Your task to perform on an android device: clear history in the chrome app Image 0: 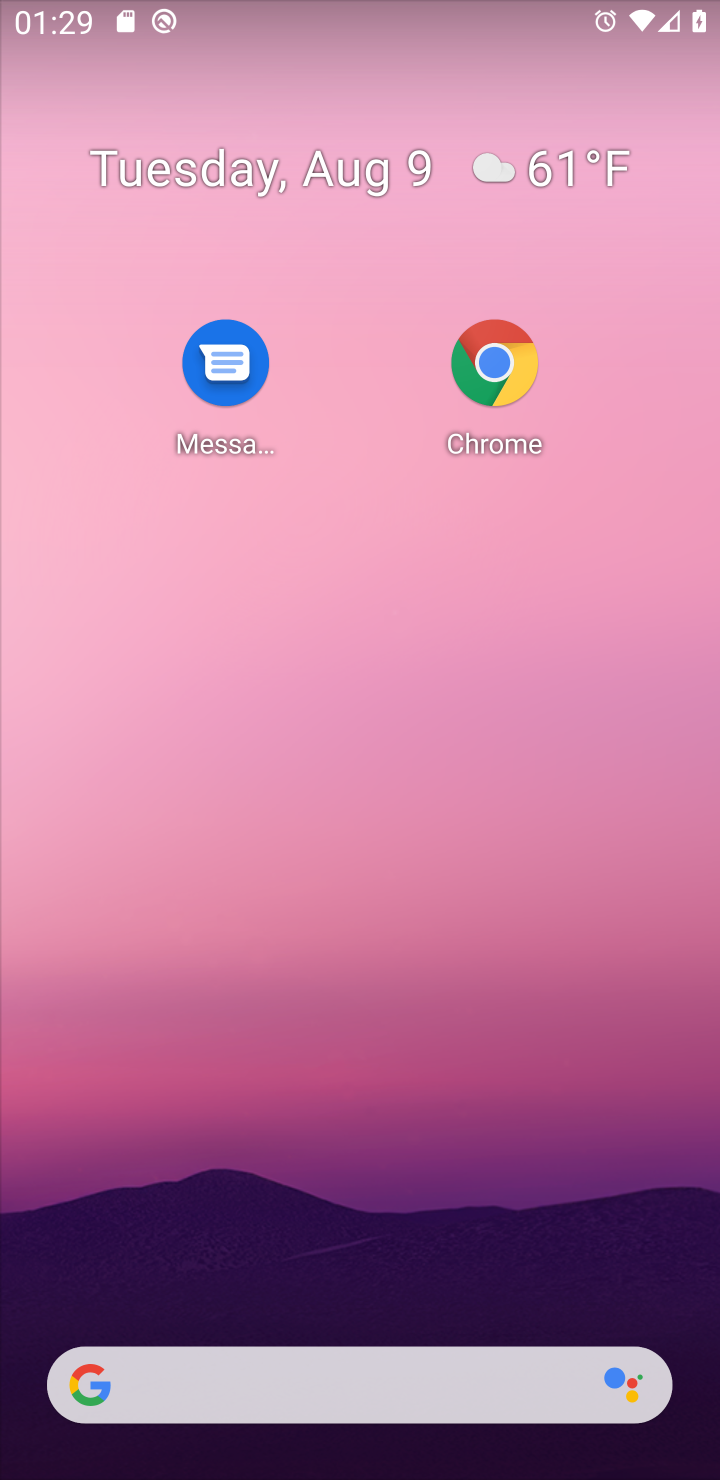
Step 0: drag from (388, 1273) to (454, 356)
Your task to perform on an android device: clear history in the chrome app Image 1: 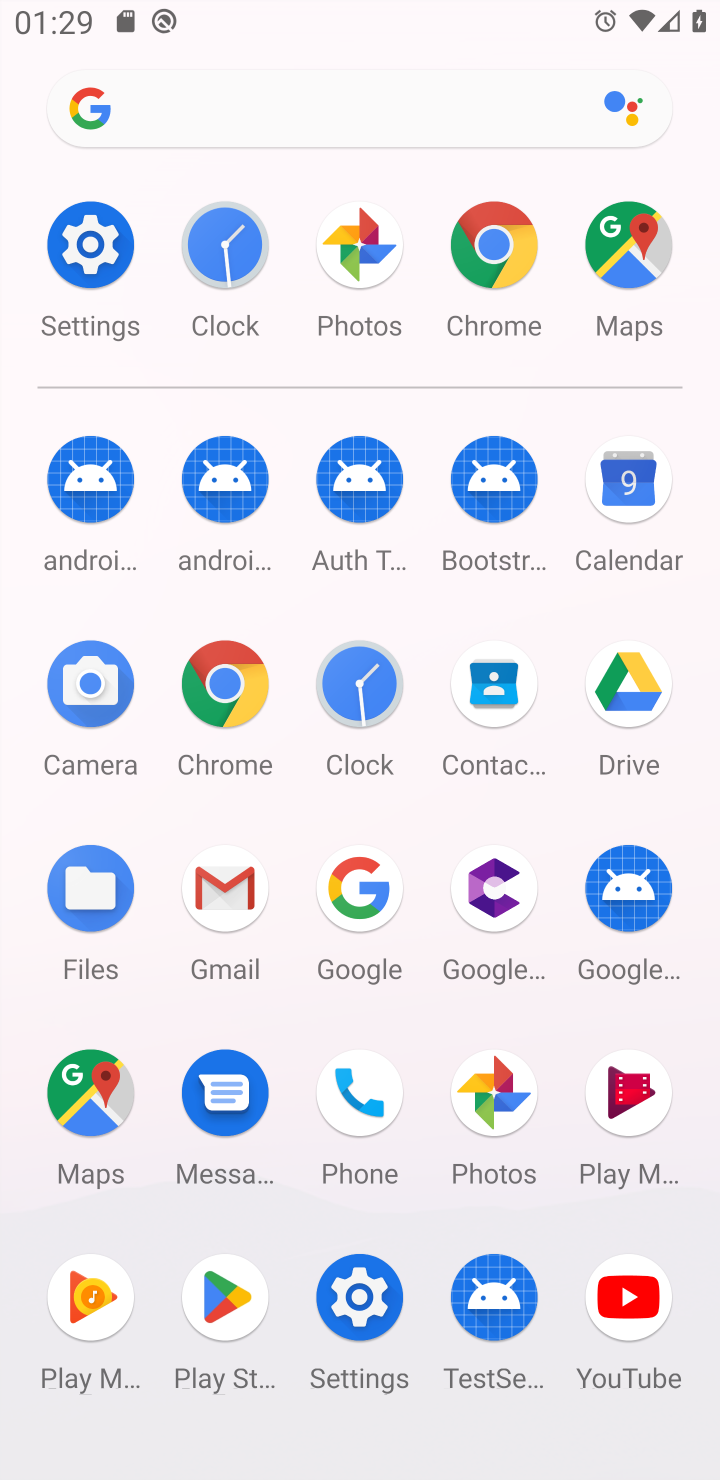
Step 1: click (224, 683)
Your task to perform on an android device: clear history in the chrome app Image 2: 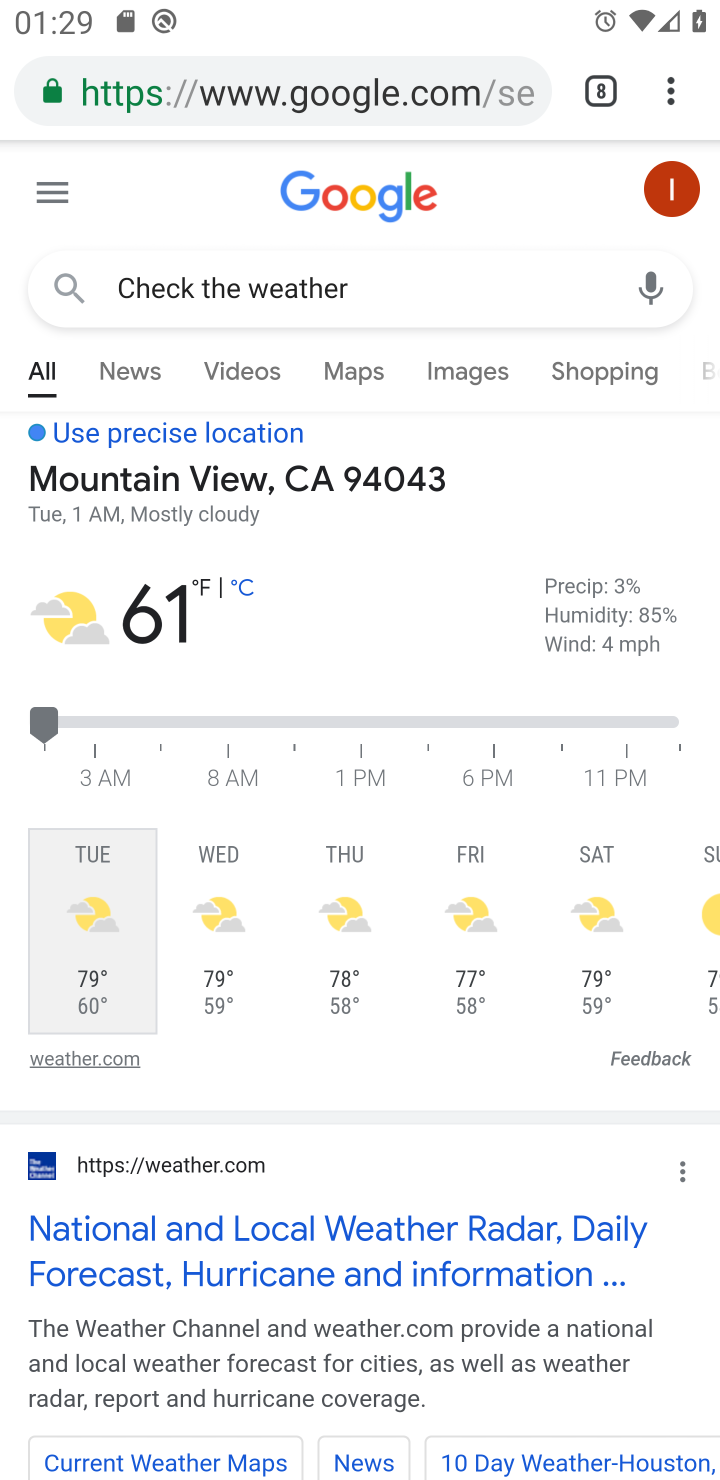
Step 2: click (677, 92)
Your task to perform on an android device: clear history in the chrome app Image 3: 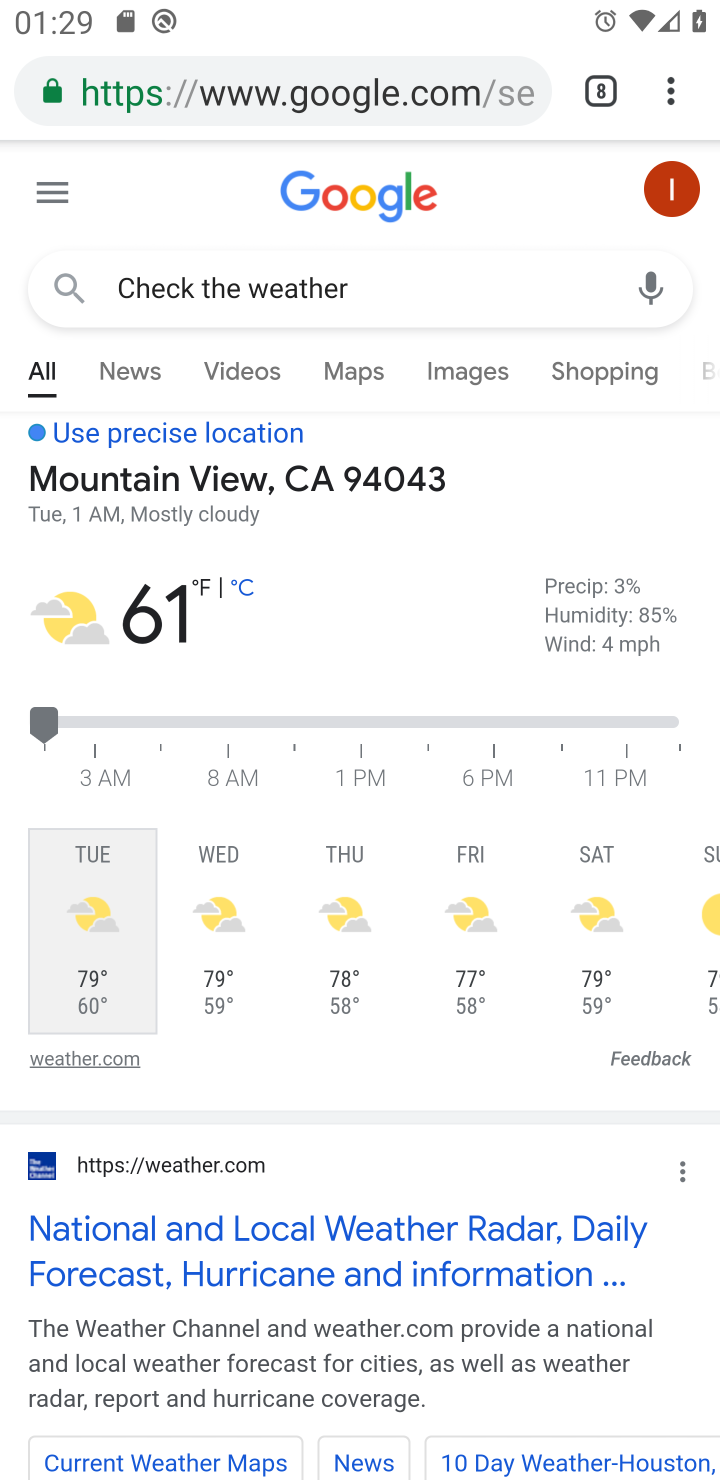
Step 3: click (674, 92)
Your task to perform on an android device: clear history in the chrome app Image 4: 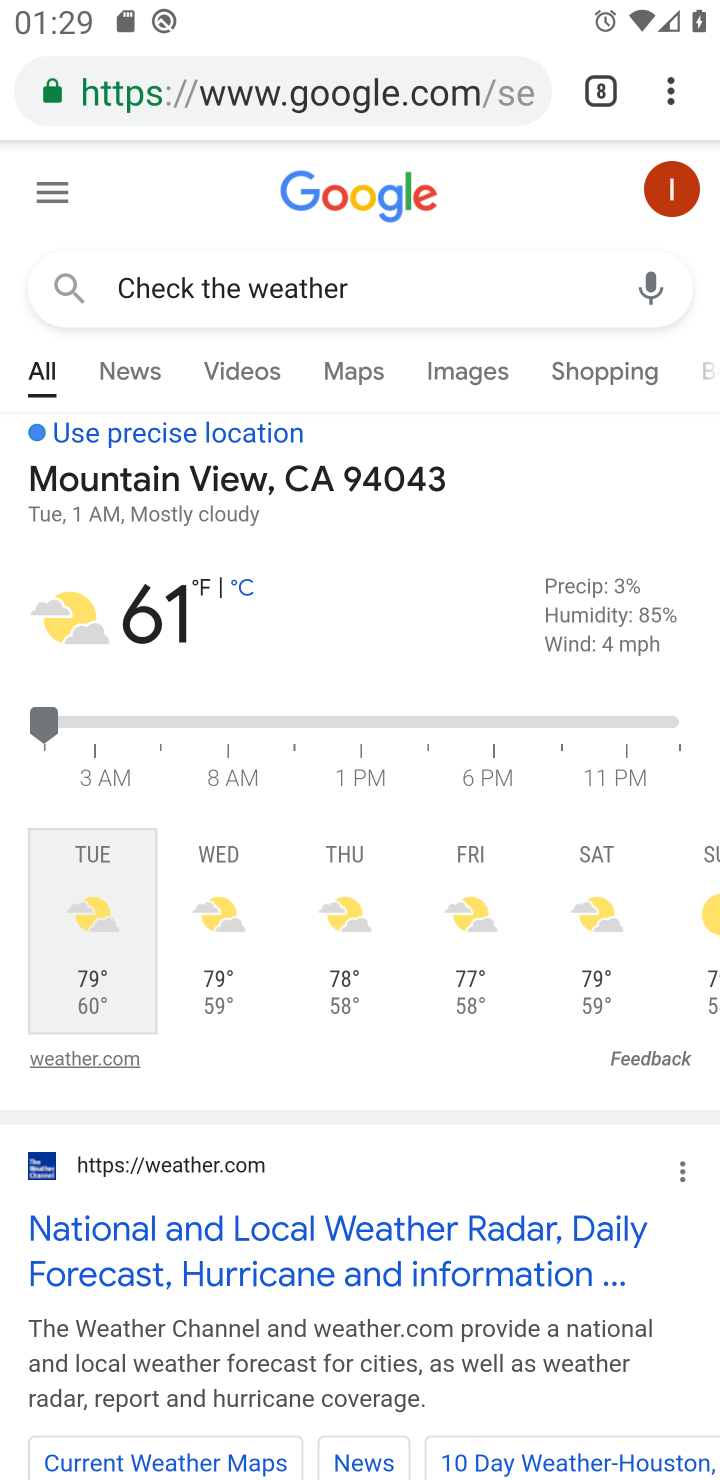
Step 4: click (674, 92)
Your task to perform on an android device: clear history in the chrome app Image 5: 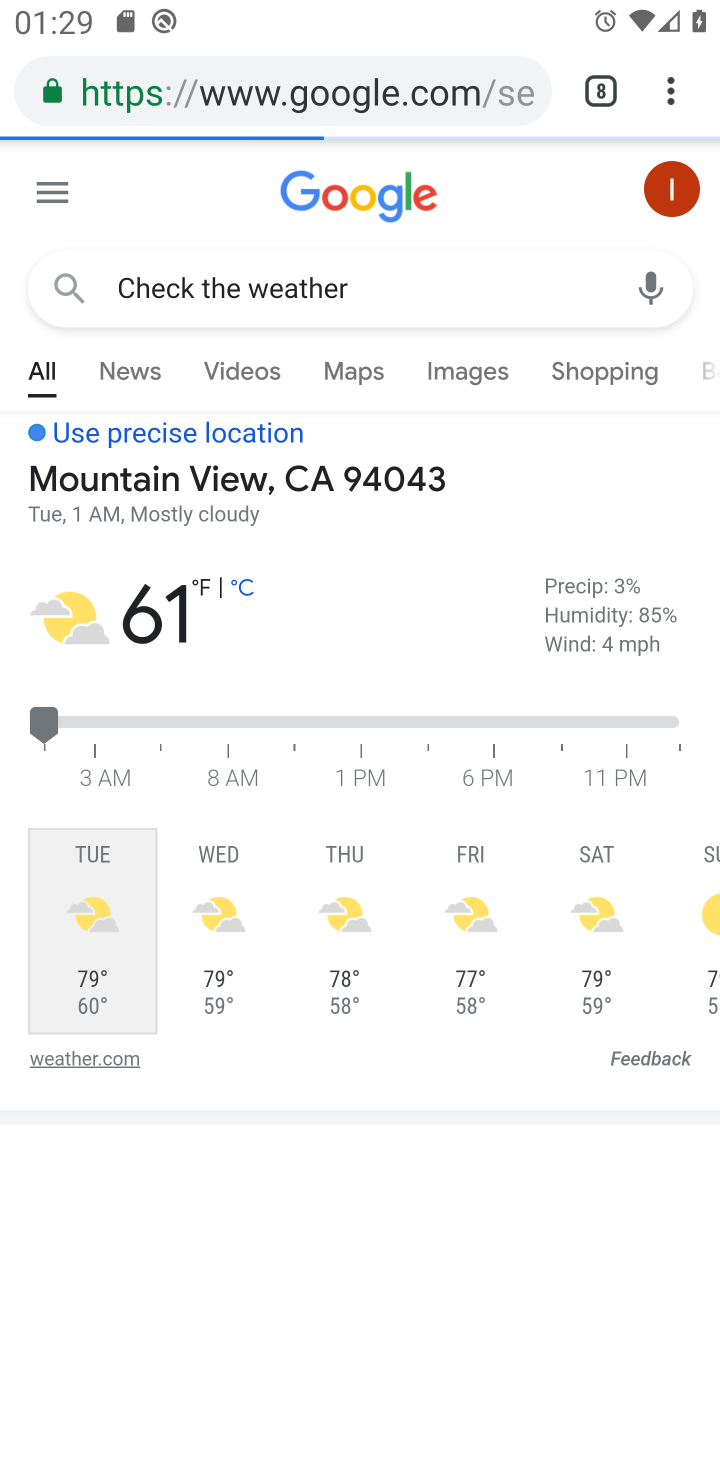
Step 5: click (674, 92)
Your task to perform on an android device: clear history in the chrome app Image 6: 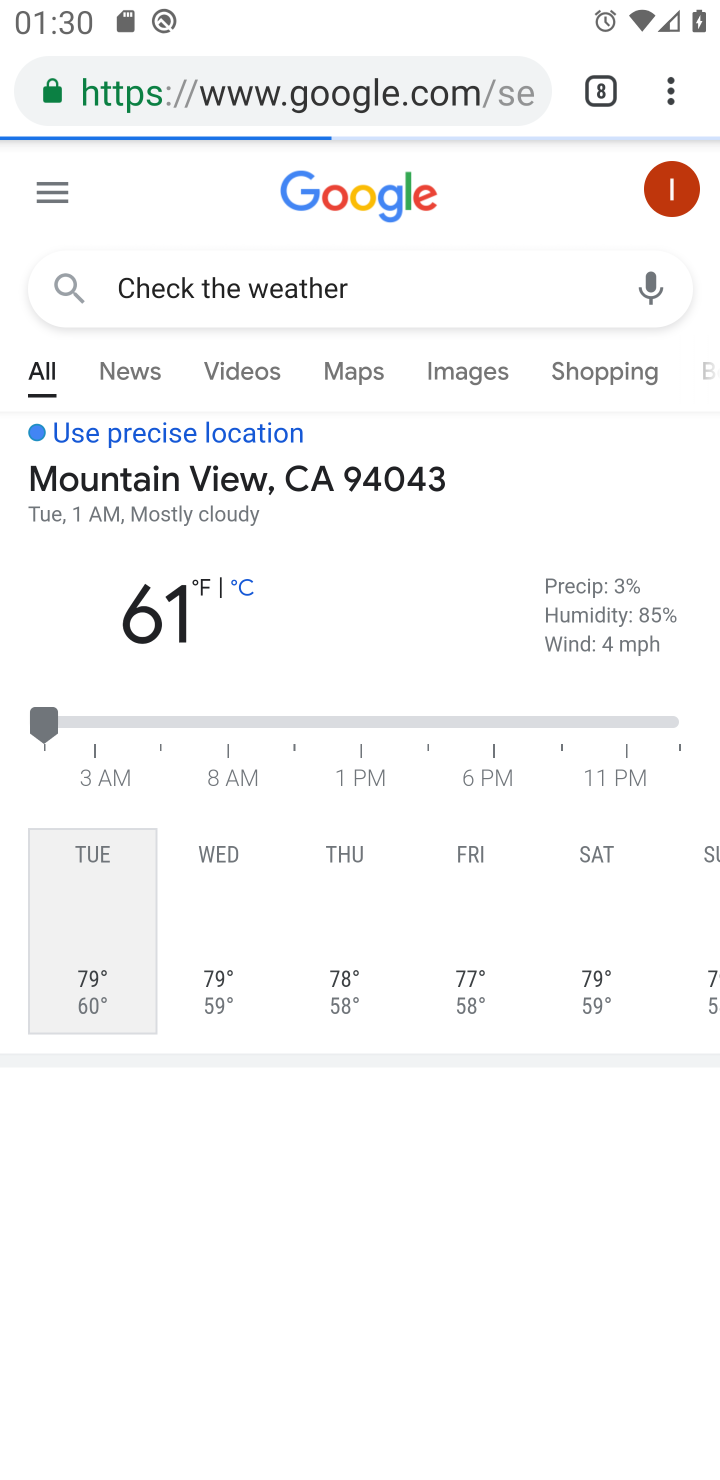
Step 6: click (671, 95)
Your task to perform on an android device: clear history in the chrome app Image 7: 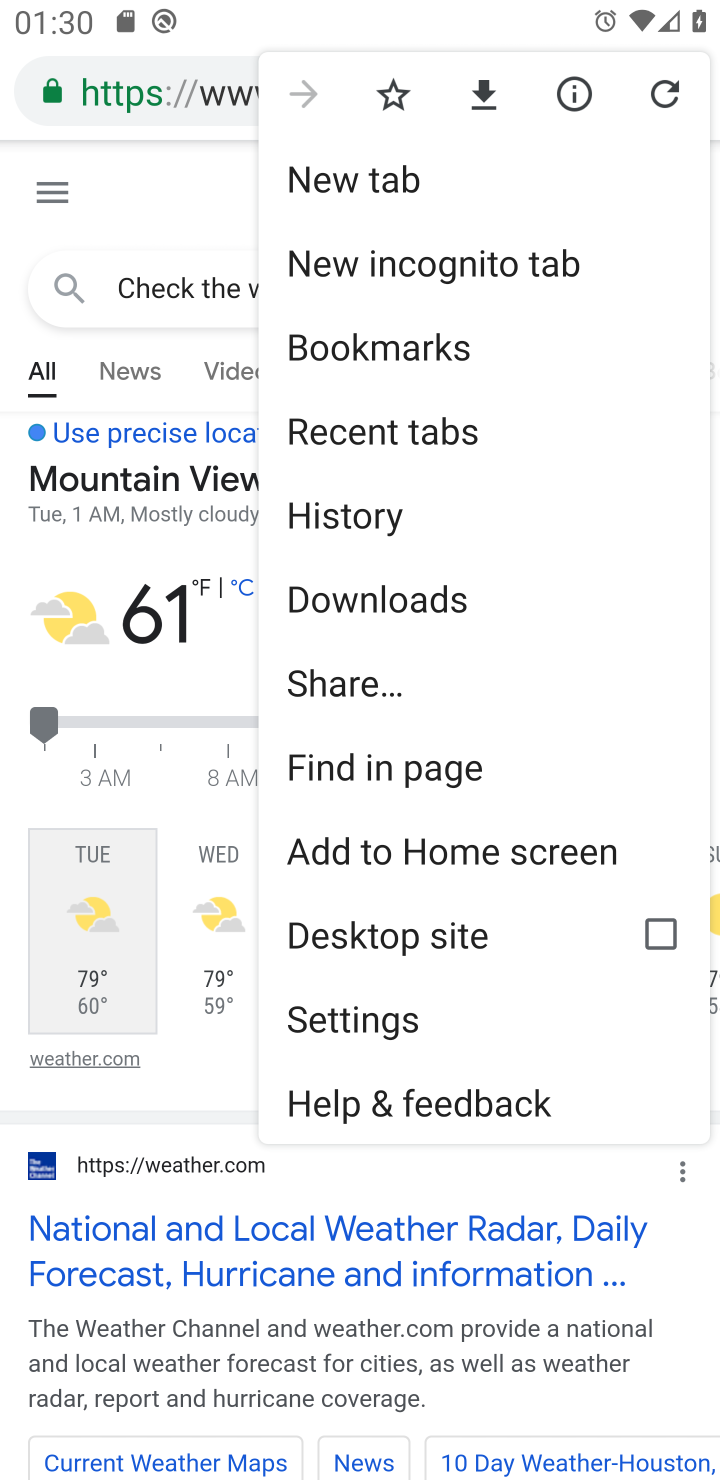
Step 7: click (365, 527)
Your task to perform on an android device: clear history in the chrome app Image 8: 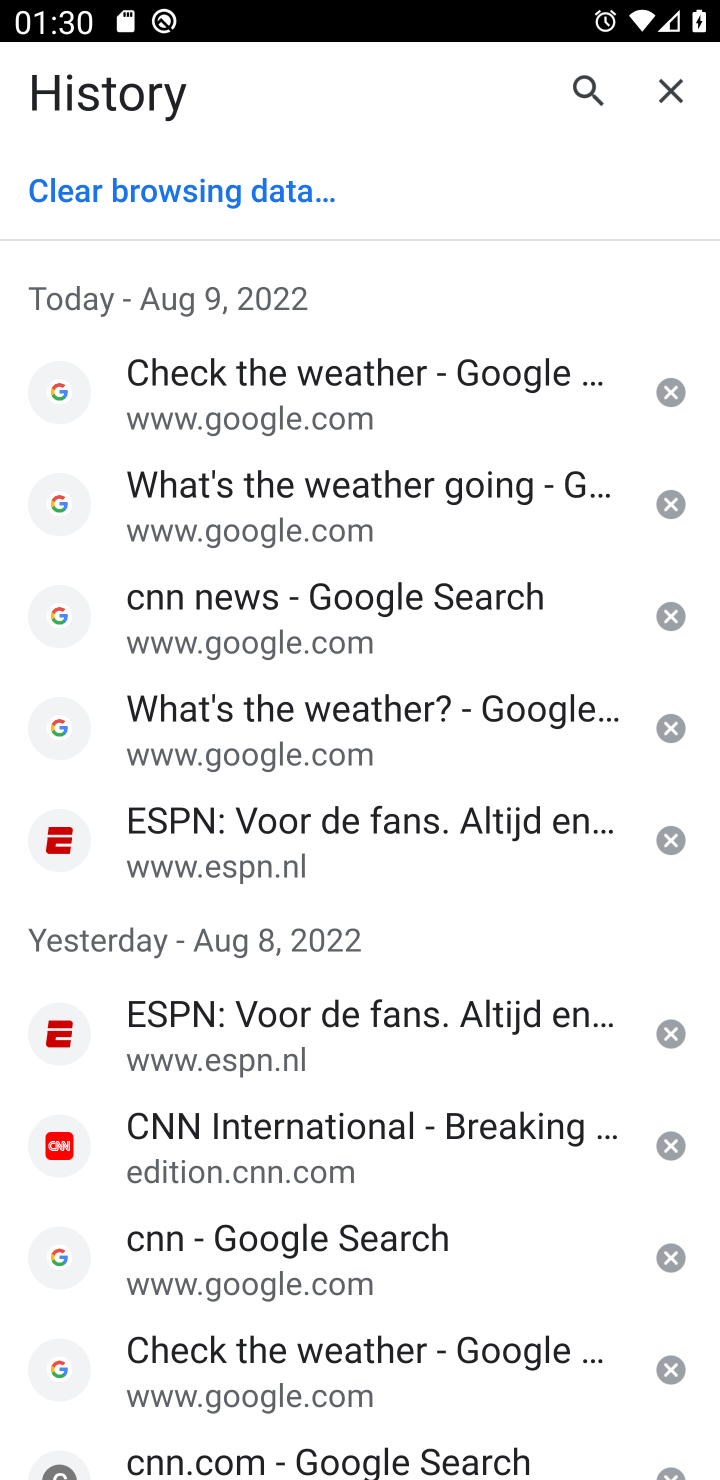
Step 8: click (195, 177)
Your task to perform on an android device: clear history in the chrome app Image 9: 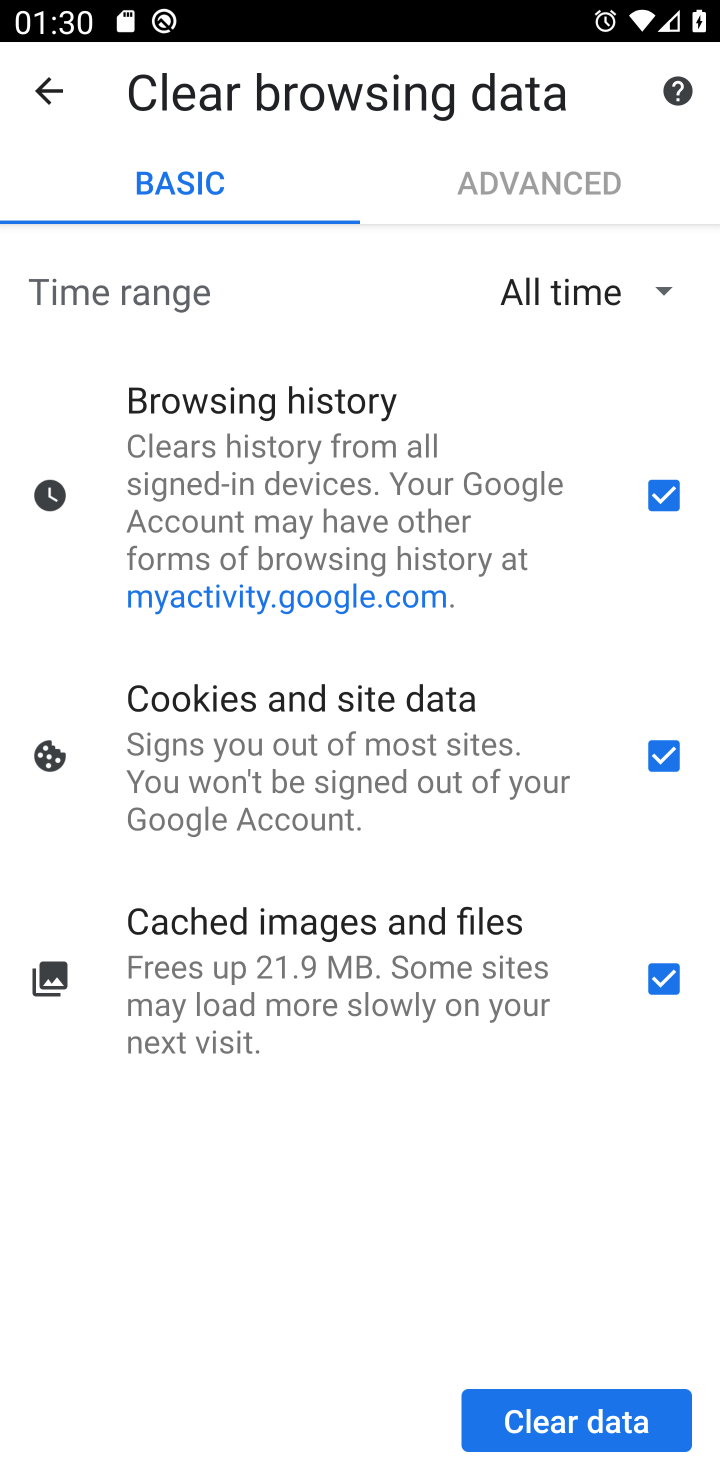
Step 9: click (573, 1422)
Your task to perform on an android device: clear history in the chrome app Image 10: 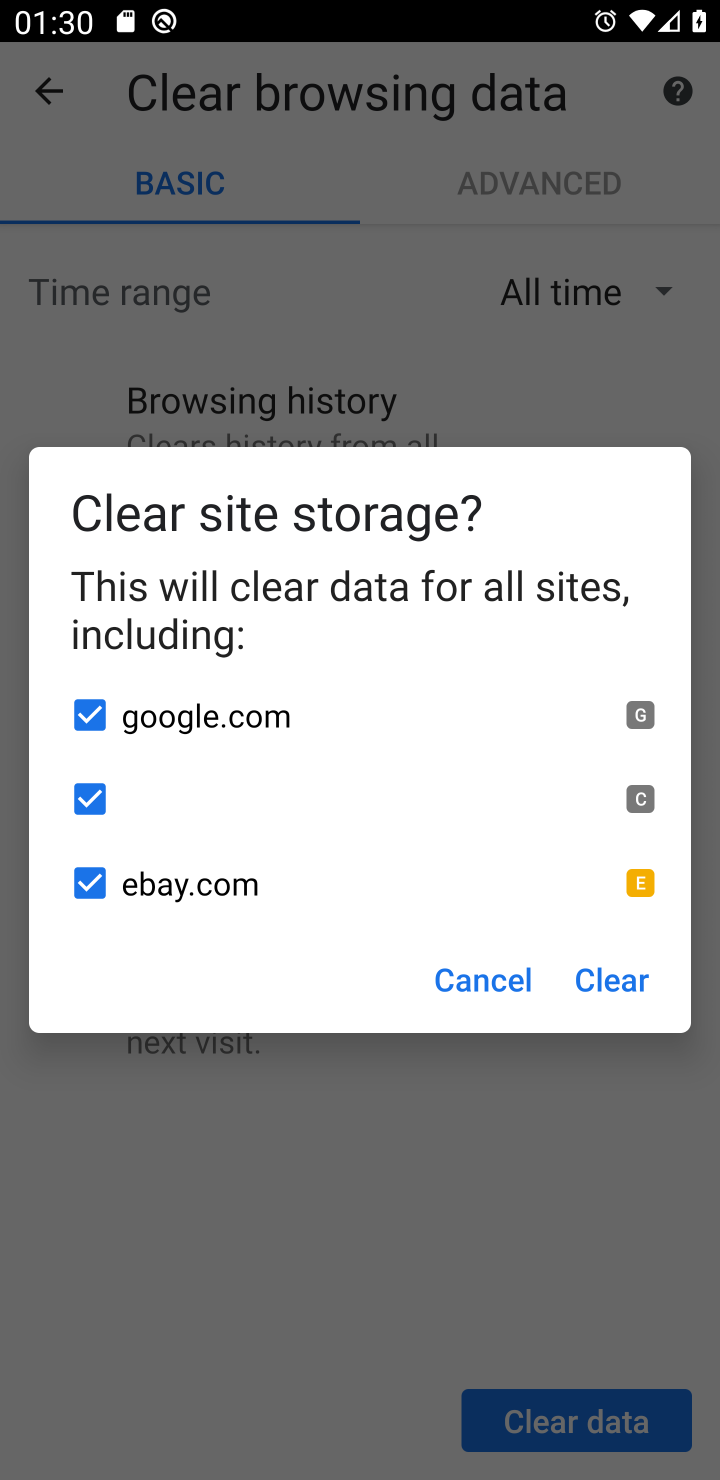
Step 10: click (627, 981)
Your task to perform on an android device: clear history in the chrome app Image 11: 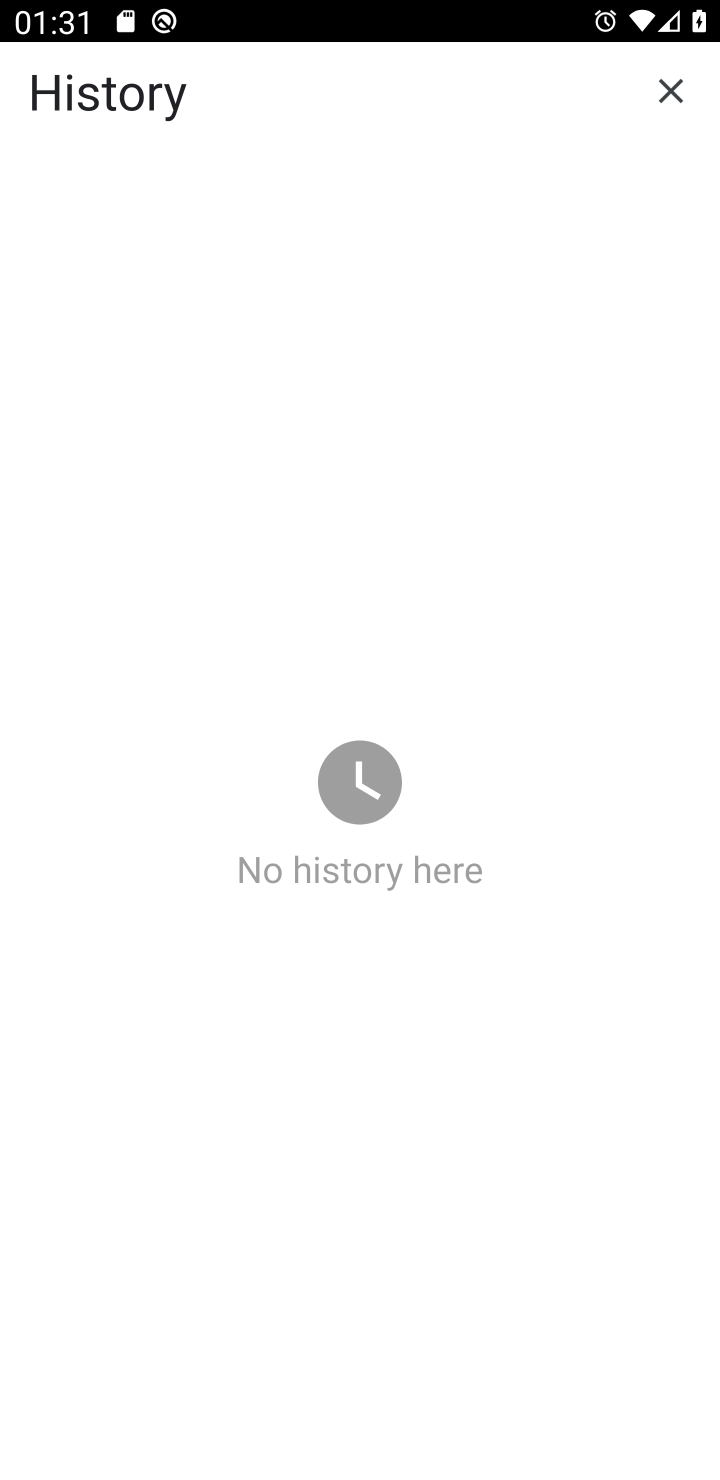
Step 11: task complete